Your task to perform on an android device: Open Chrome and go to the settings page Image 0: 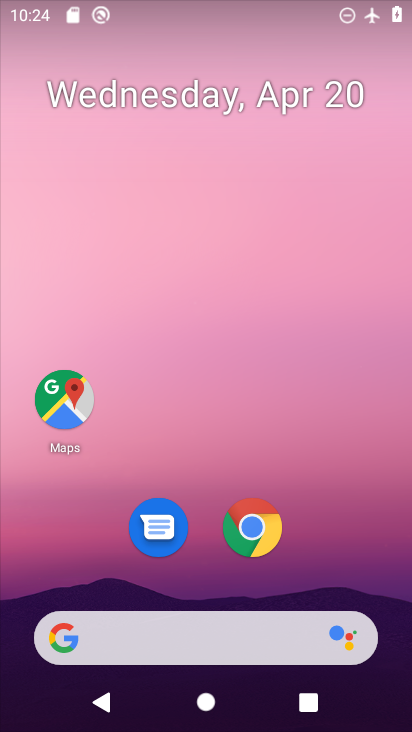
Step 0: click (241, 518)
Your task to perform on an android device: Open Chrome and go to the settings page Image 1: 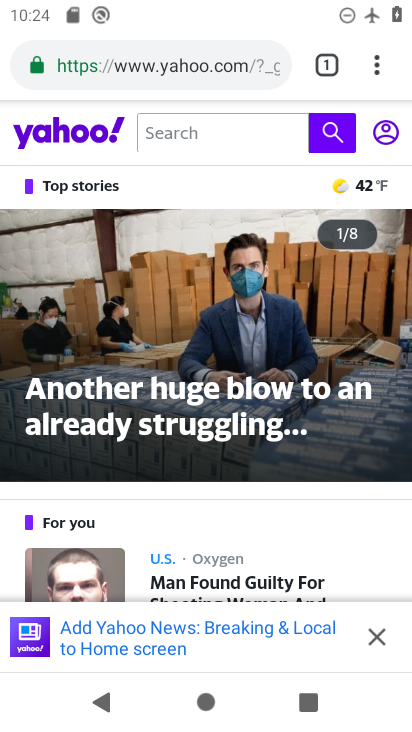
Step 1: click (373, 70)
Your task to perform on an android device: Open Chrome and go to the settings page Image 2: 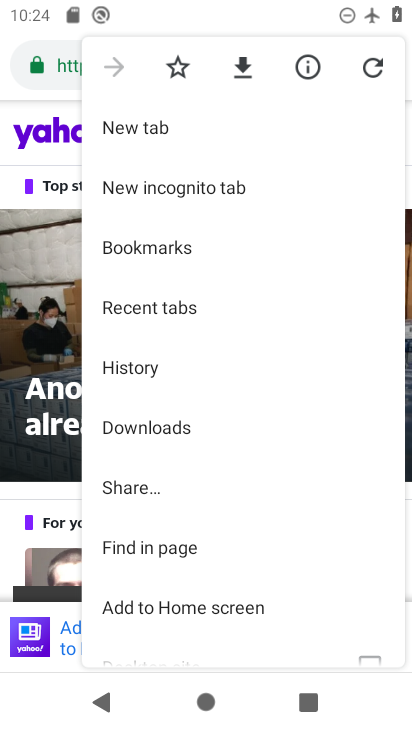
Step 2: drag from (194, 584) to (287, 71)
Your task to perform on an android device: Open Chrome and go to the settings page Image 3: 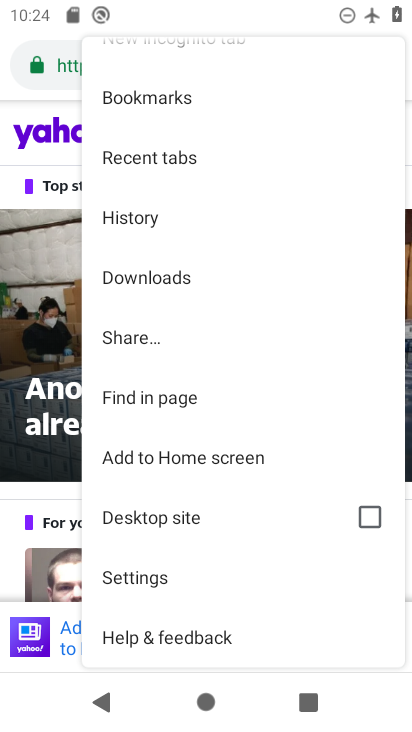
Step 3: click (132, 581)
Your task to perform on an android device: Open Chrome and go to the settings page Image 4: 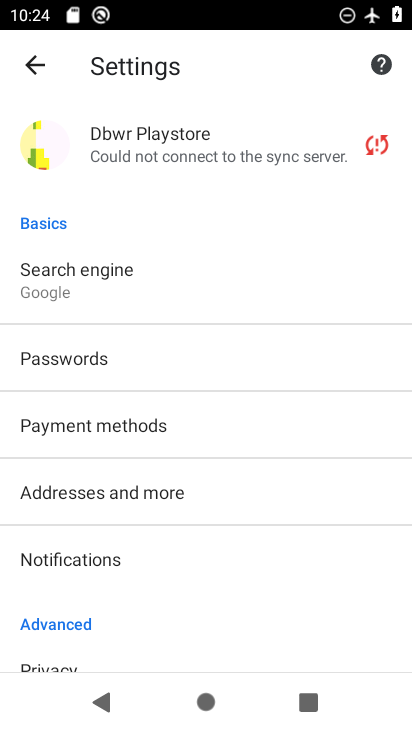
Step 4: task complete